Your task to perform on an android device: Go to network settings Image 0: 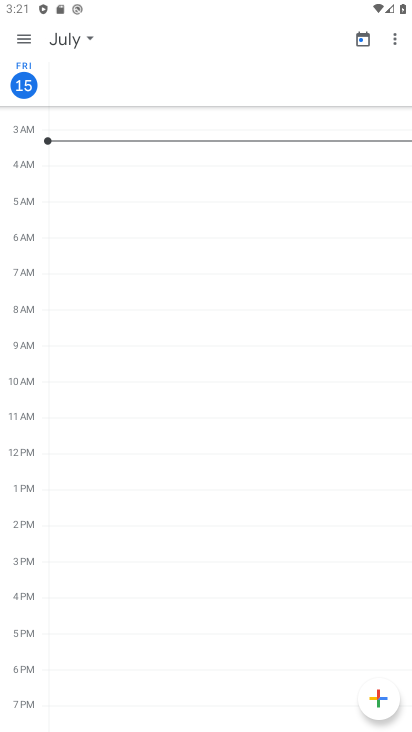
Step 0: press home button
Your task to perform on an android device: Go to network settings Image 1: 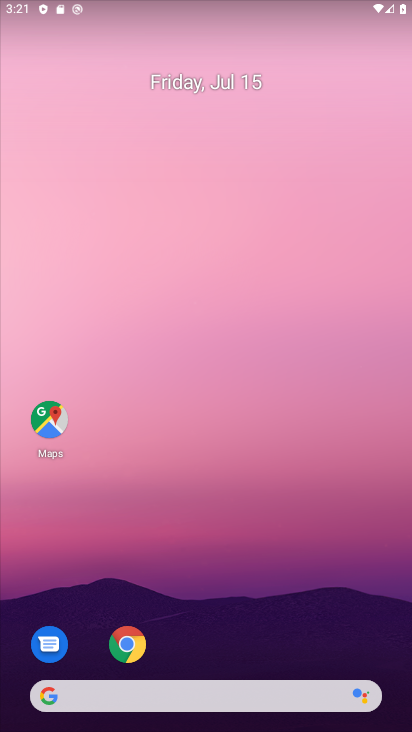
Step 1: drag from (277, 629) to (220, 113)
Your task to perform on an android device: Go to network settings Image 2: 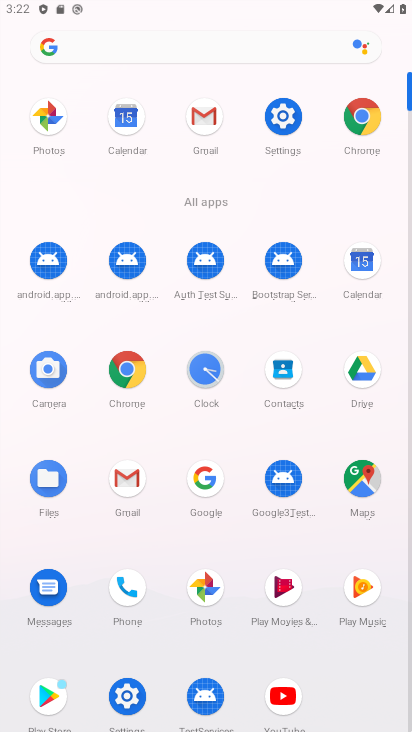
Step 2: click (285, 123)
Your task to perform on an android device: Go to network settings Image 3: 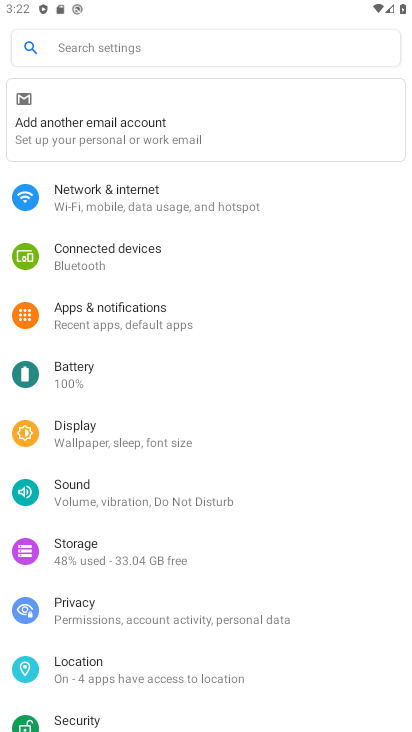
Step 3: click (200, 184)
Your task to perform on an android device: Go to network settings Image 4: 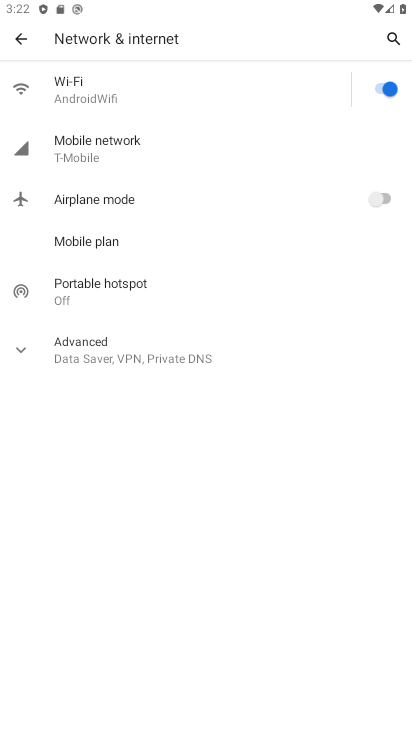
Step 4: task complete